Your task to perform on an android device: Set the phone to "Do not disturb". Image 0: 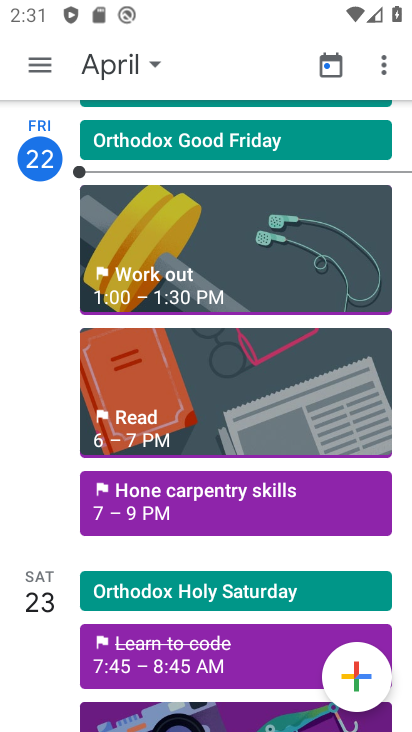
Step 0: press home button
Your task to perform on an android device: Set the phone to "Do not disturb". Image 1: 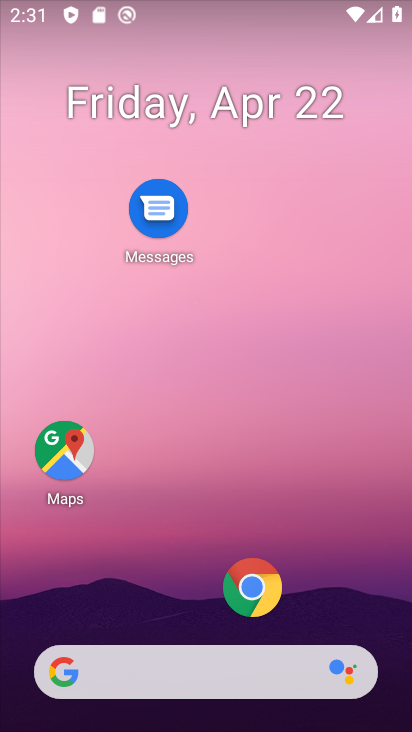
Step 1: drag from (197, 578) to (197, 194)
Your task to perform on an android device: Set the phone to "Do not disturb". Image 2: 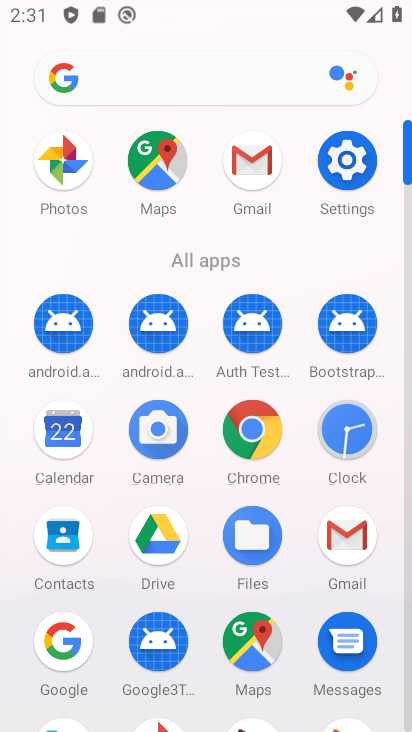
Step 2: click (347, 174)
Your task to perform on an android device: Set the phone to "Do not disturb". Image 3: 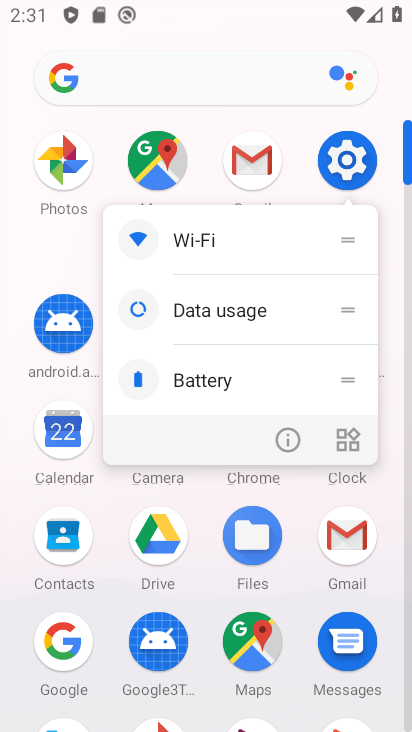
Step 3: click (346, 175)
Your task to perform on an android device: Set the phone to "Do not disturb". Image 4: 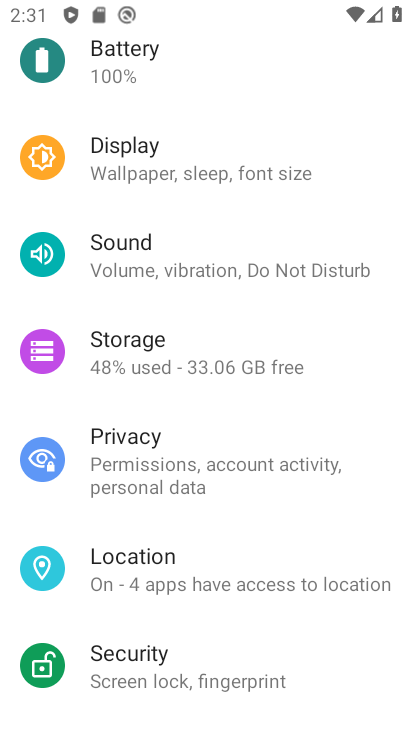
Step 4: click (174, 268)
Your task to perform on an android device: Set the phone to "Do not disturb". Image 5: 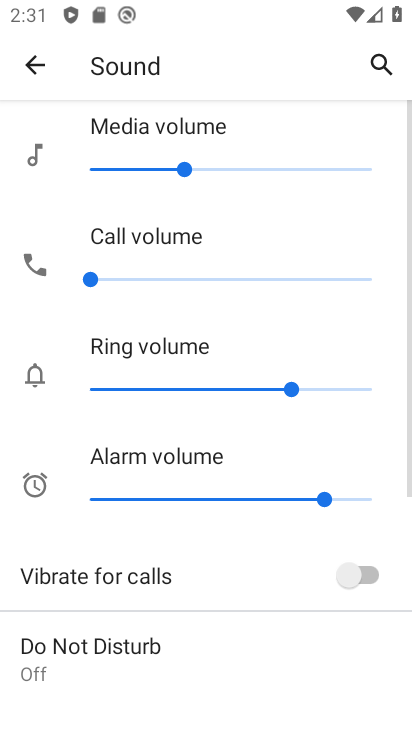
Step 5: drag from (232, 643) to (229, 250)
Your task to perform on an android device: Set the phone to "Do not disturb". Image 6: 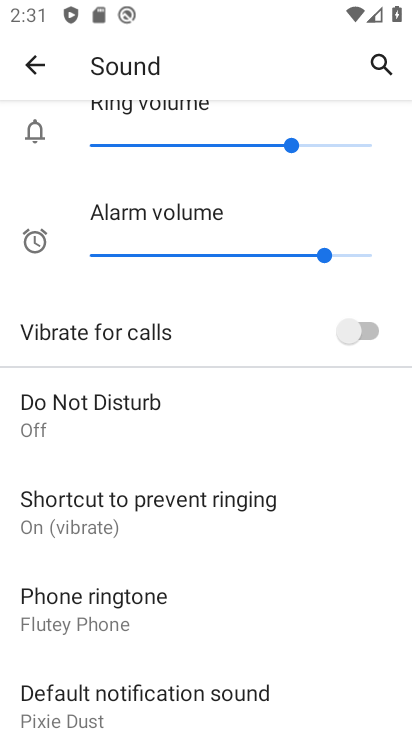
Step 6: click (177, 400)
Your task to perform on an android device: Set the phone to "Do not disturb". Image 7: 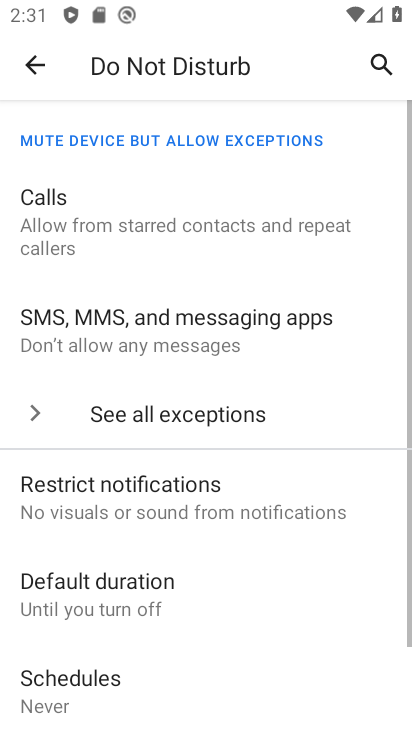
Step 7: drag from (152, 704) to (180, 317)
Your task to perform on an android device: Set the phone to "Do not disturb". Image 8: 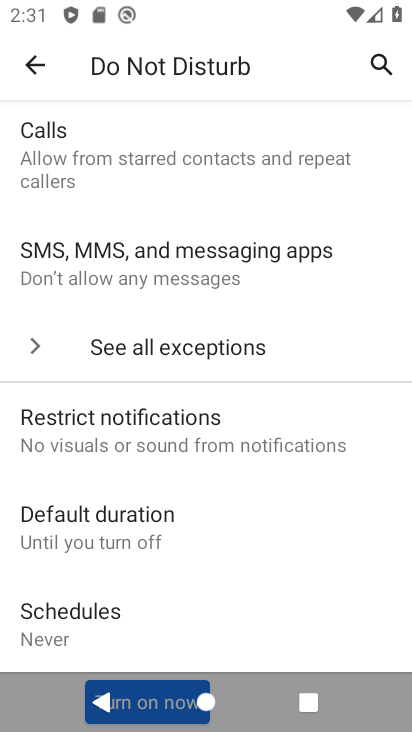
Step 8: drag from (194, 602) to (212, 318)
Your task to perform on an android device: Set the phone to "Do not disturb". Image 9: 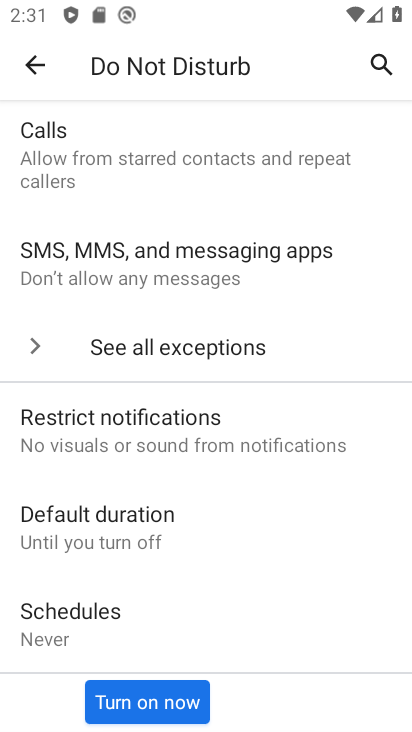
Step 9: click (166, 704)
Your task to perform on an android device: Set the phone to "Do not disturb". Image 10: 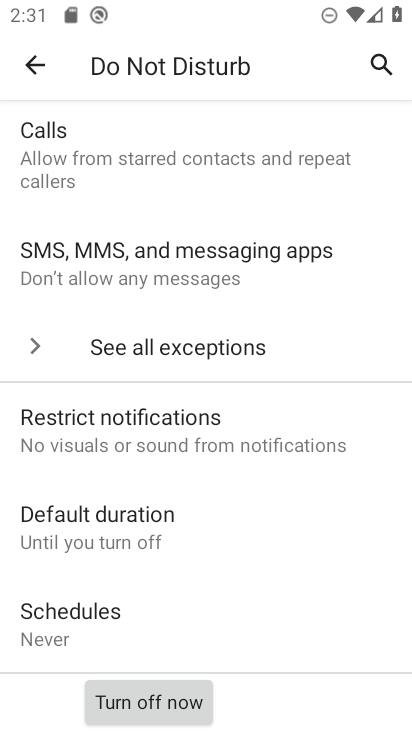
Step 10: task complete